Your task to perform on an android device: toggle sleep mode Image 0: 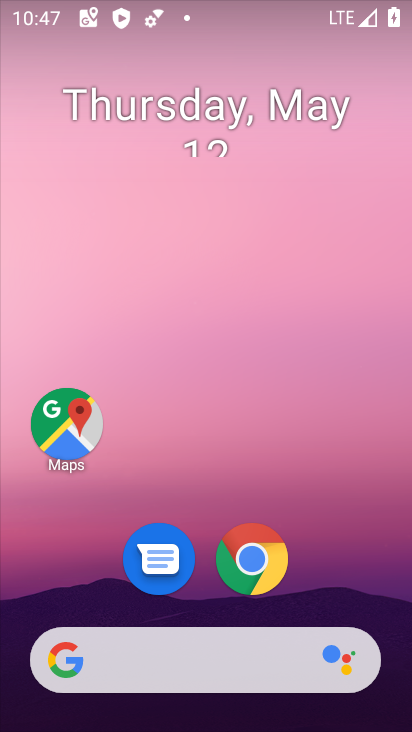
Step 0: drag from (215, 606) to (205, 192)
Your task to perform on an android device: toggle sleep mode Image 1: 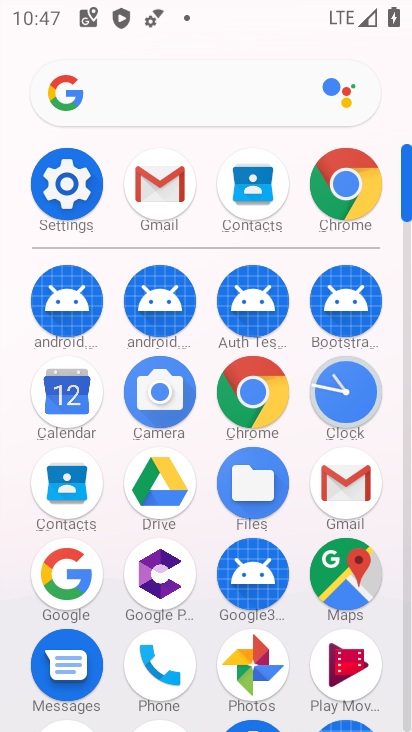
Step 1: click (56, 189)
Your task to perform on an android device: toggle sleep mode Image 2: 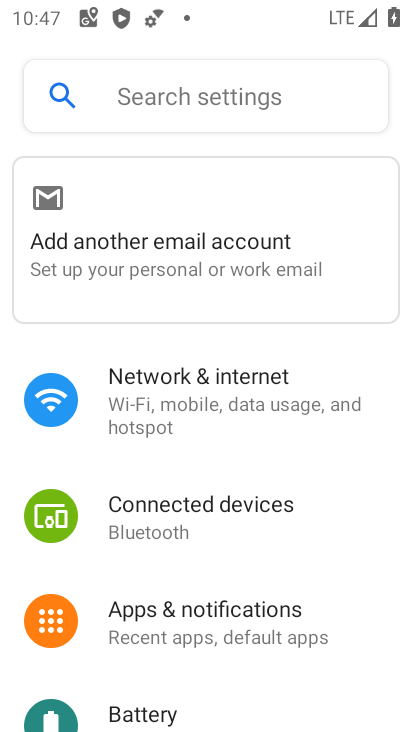
Step 2: drag from (230, 629) to (267, 337)
Your task to perform on an android device: toggle sleep mode Image 3: 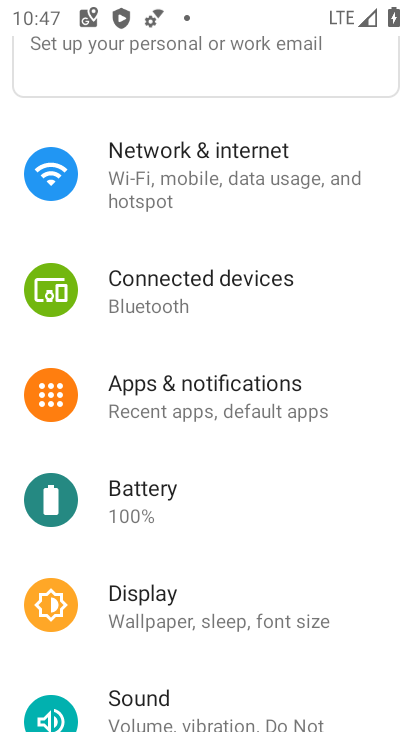
Step 3: click (138, 628)
Your task to perform on an android device: toggle sleep mode Image 4: 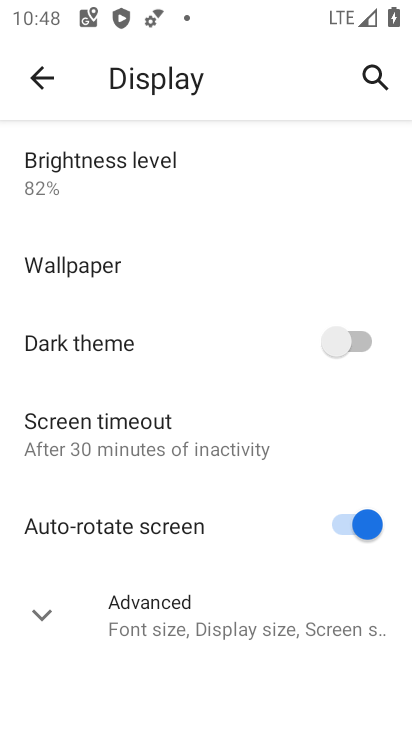
Step 4: click (167, 624)
Your task to perform on an android device: toggle sleep mode Image 5: 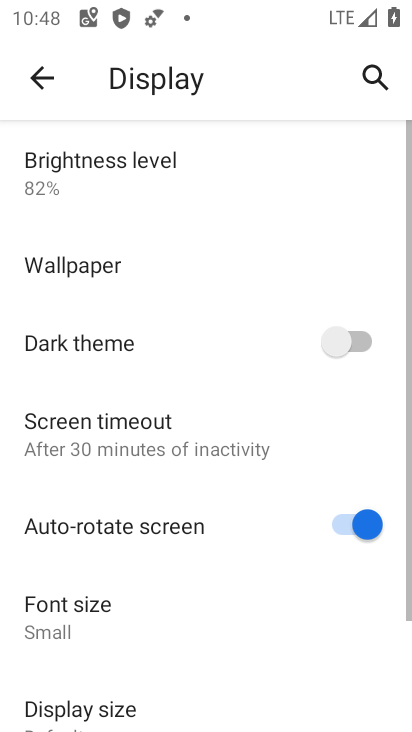
Step 5: click (159, 442)
Your task to perform on an android device: toggle sleep mode Image 6: 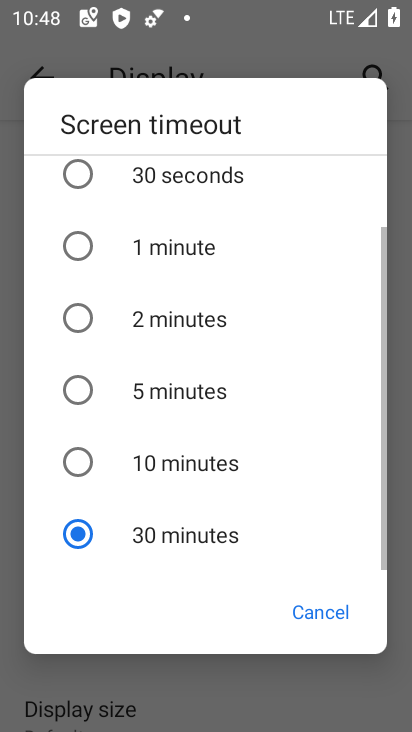
Step 6: click (153, 393)
Your task to perform on an android device: toggle sleep mode Image 7: 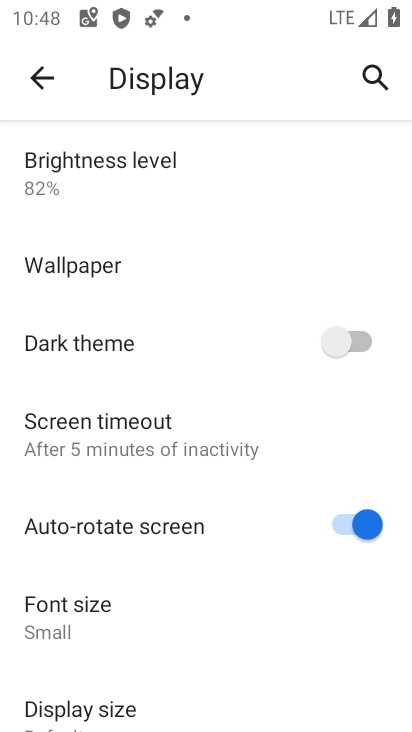
Step 7: task complete